Your task to perform on an android device: check android version Image 0: 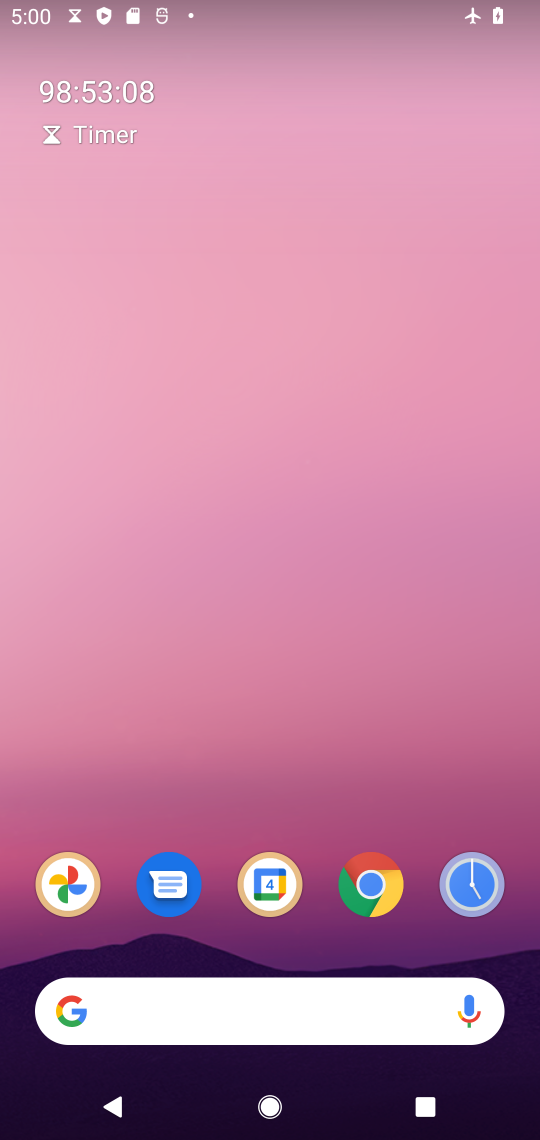
Step 0: drag from (298, 926) to (328, 376)
Your task to perform on an android device: check android version Image 1: 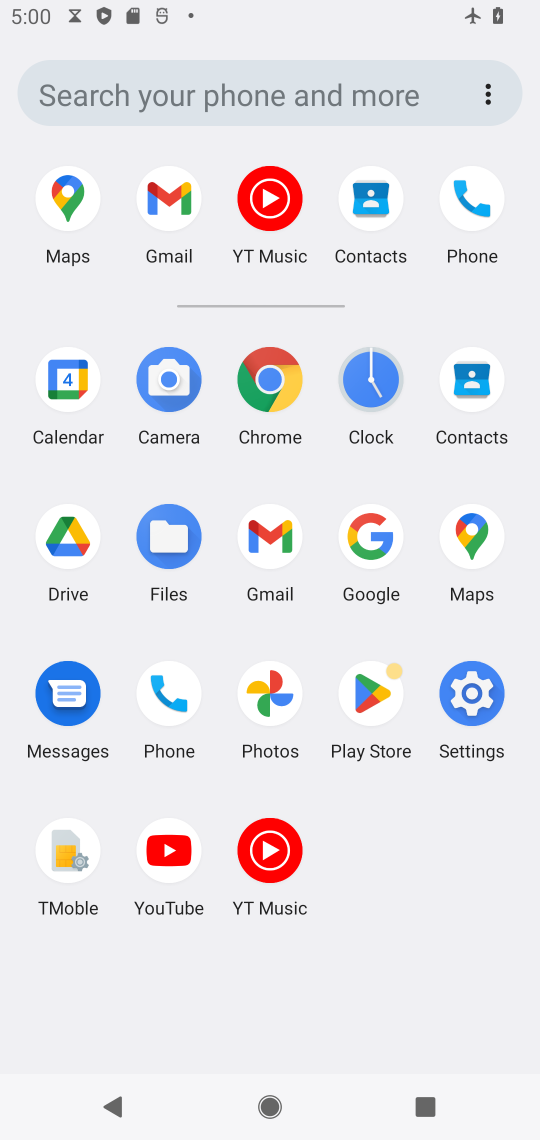
Step 1: click (470, 684)
Your task to perform on an android device: check android version Image 2: 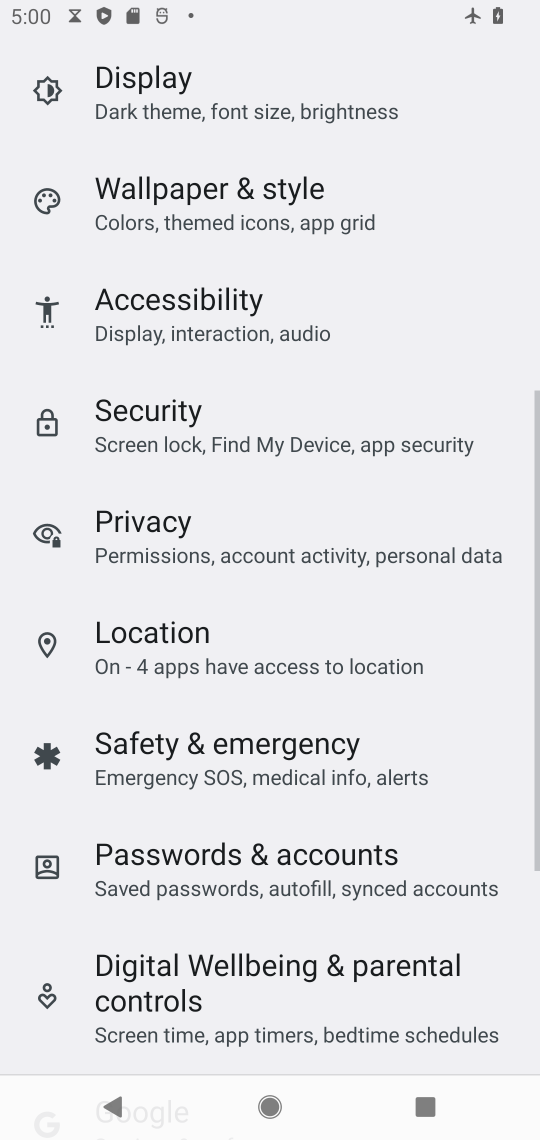
Step 2: drag from (268, 1016) to (386, 121)
Your task to perform on an android device: check android version Image 3: 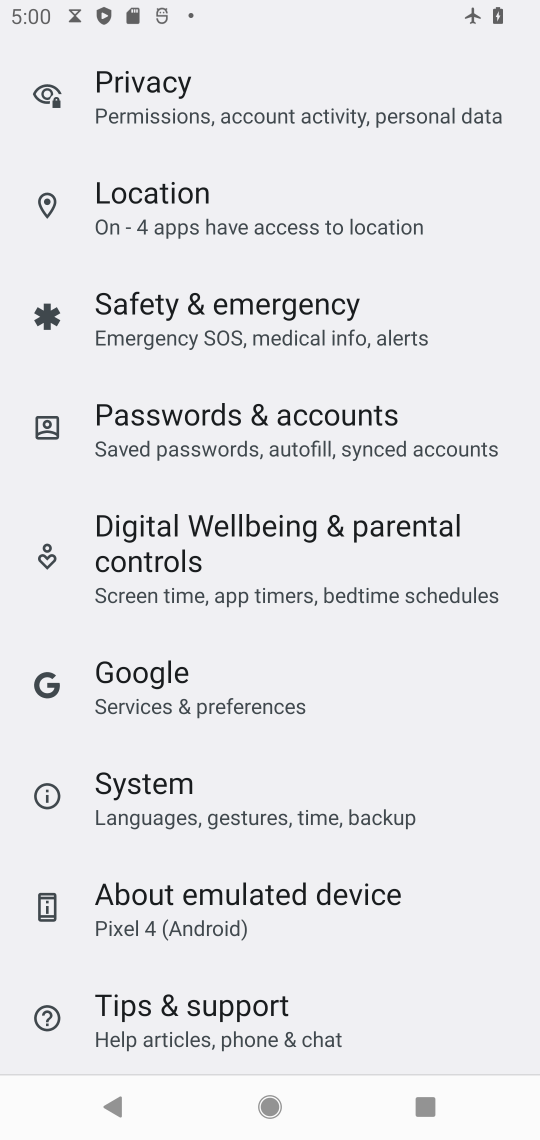
Step 3: click (236, 912)
Your task to perform on an android device: check android version Image 4: 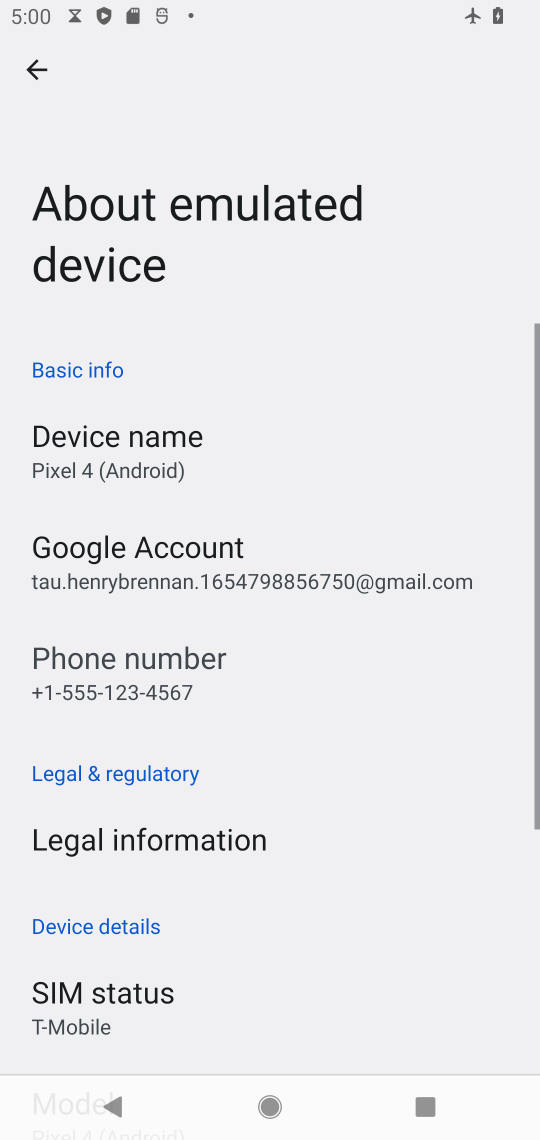
Step 4: task complete